Your task to perform on an android device: Open network settings Image 0: 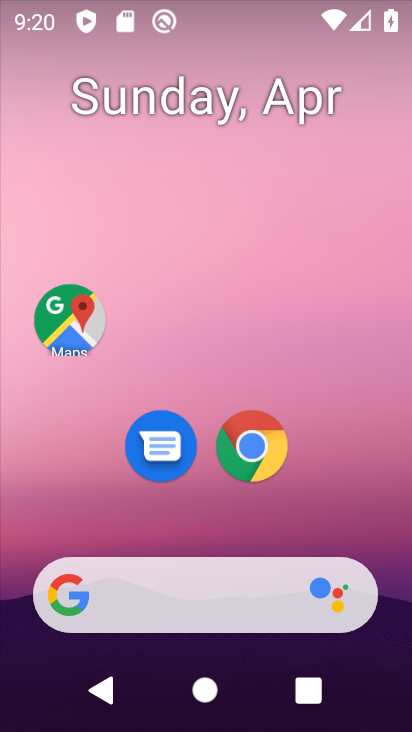
Step 0: drag from (227, 520) to (252, 192)
Your task to perform on an android device: Open network settings Image 1: 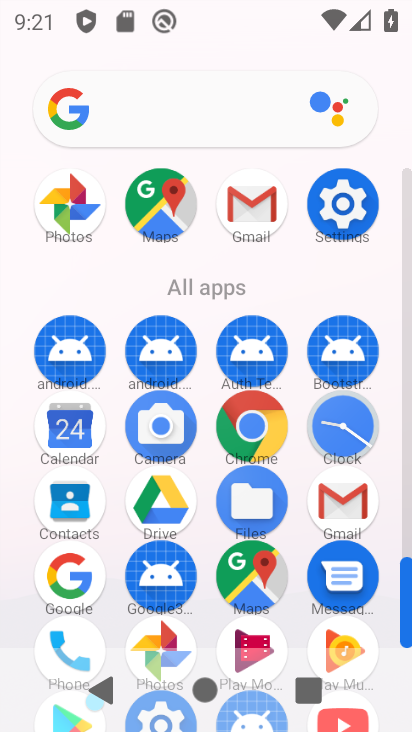
Step 1: click (331, 211)
Your task to perform on an android device: Open network settings Image 2: 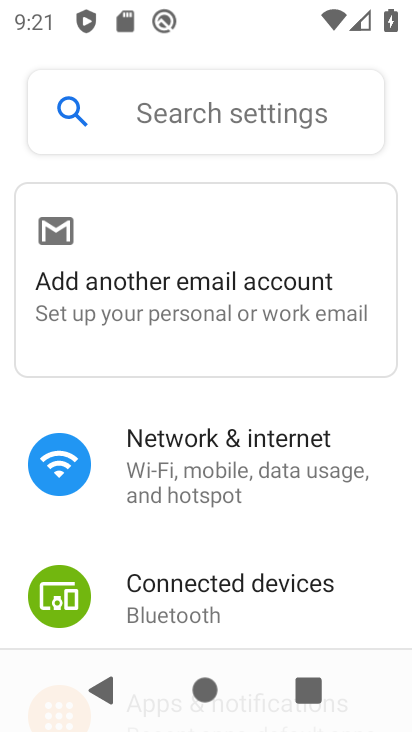
Step 2: click (189, 461)
Your task to perform on an android device: Open network settings Image 3: 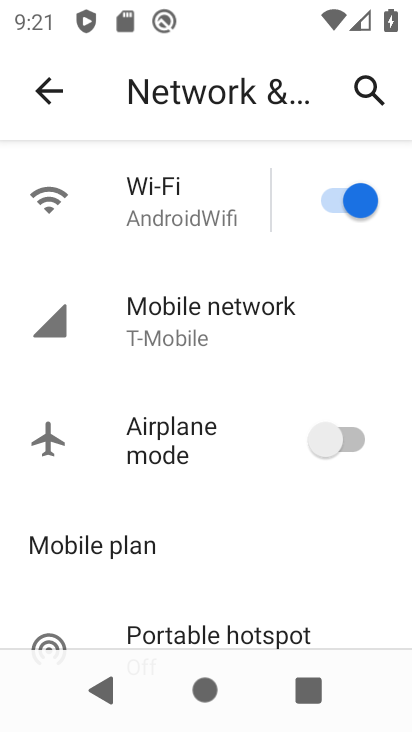
Step 3: click (229, 332)
Your task to perform on an android device: Open network settings Image 4: 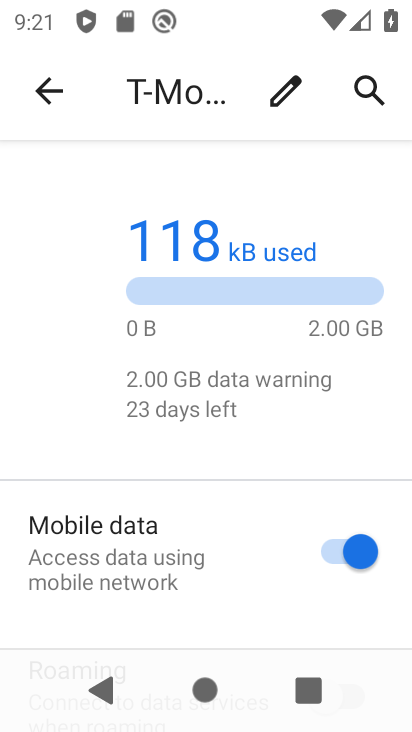
Step 4: task complete